Your task to perform on an android device: Search for "logitech g933" on costco.com, select the first entry, and add it to the cart. Image 0: 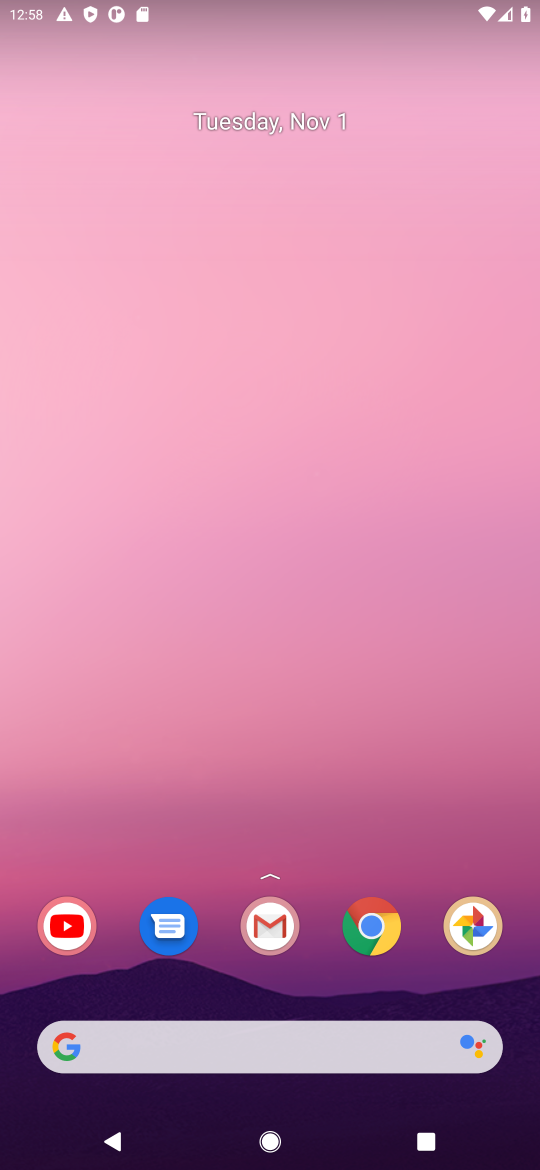
Step 0: click (381, 932)
Your task to perform on an android device: Search for "logitech g933" on costco.com, select the first entry, and add it to the cart. Image 1: 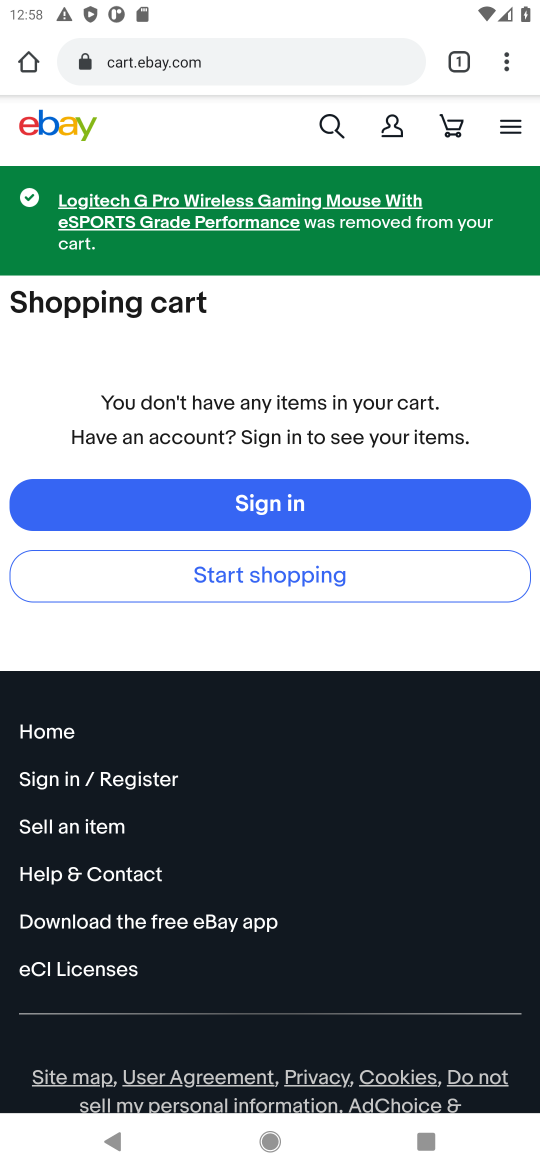
Step 1: click (204, 64)
Your task to perform on an android device: Search for "logitech g933" on costco.com, select the first entry, and add it to the cart. Image 2: 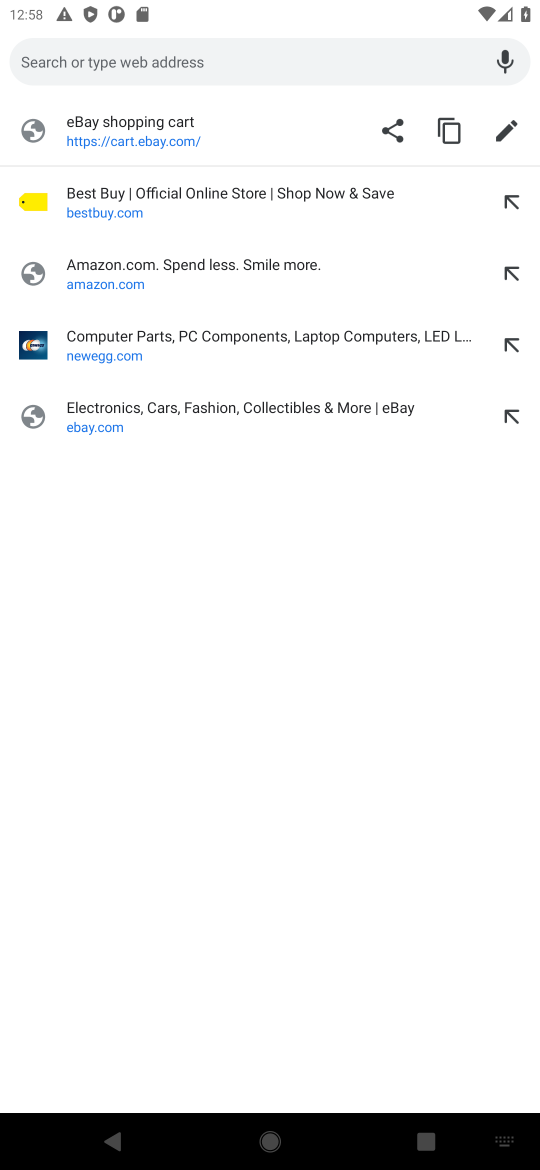
Step 2: type "costco.com"
Your task to perform on an android device: Search for "logitech g933" on costco.com, select the first entry, and add it to the cart. Image 3: 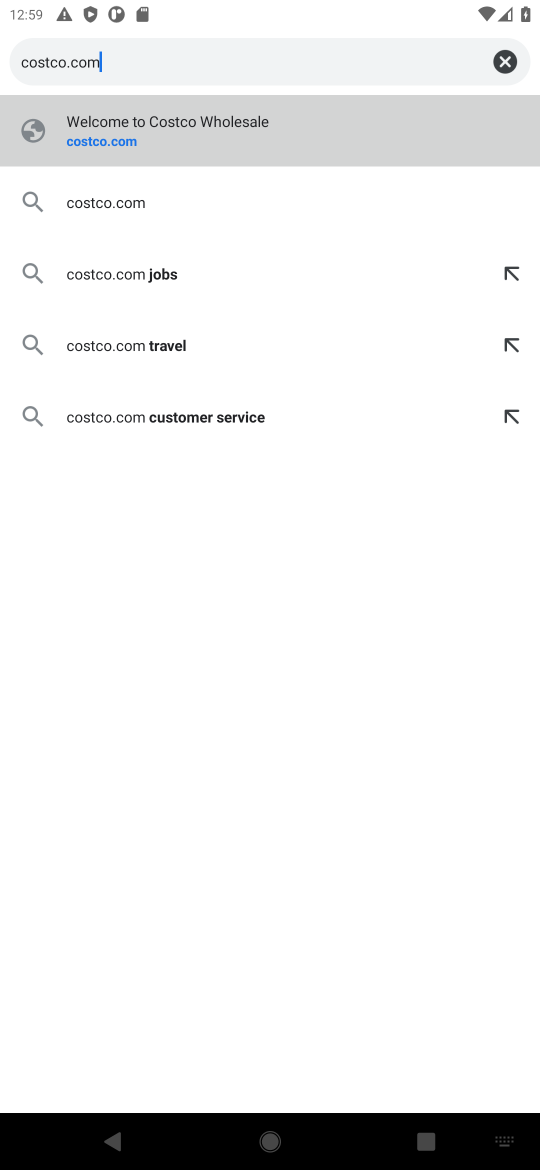
Step 3: click (241, 131)
Your task to perform on an android device: Search for "logitech g933" on costco.com, select the first entry, and add it to the cart. Image 4: 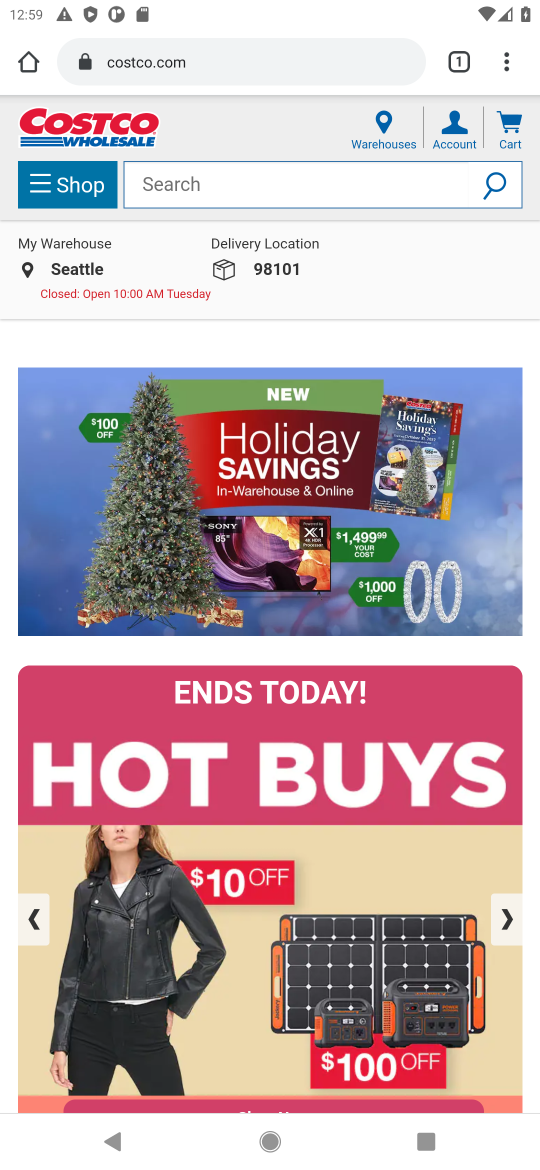
Step 4: click (250, 182)
Your task to perform on an android device: Search for "logitech g933" on costco.com, select the first entry, and add it to the cart. Image 5: 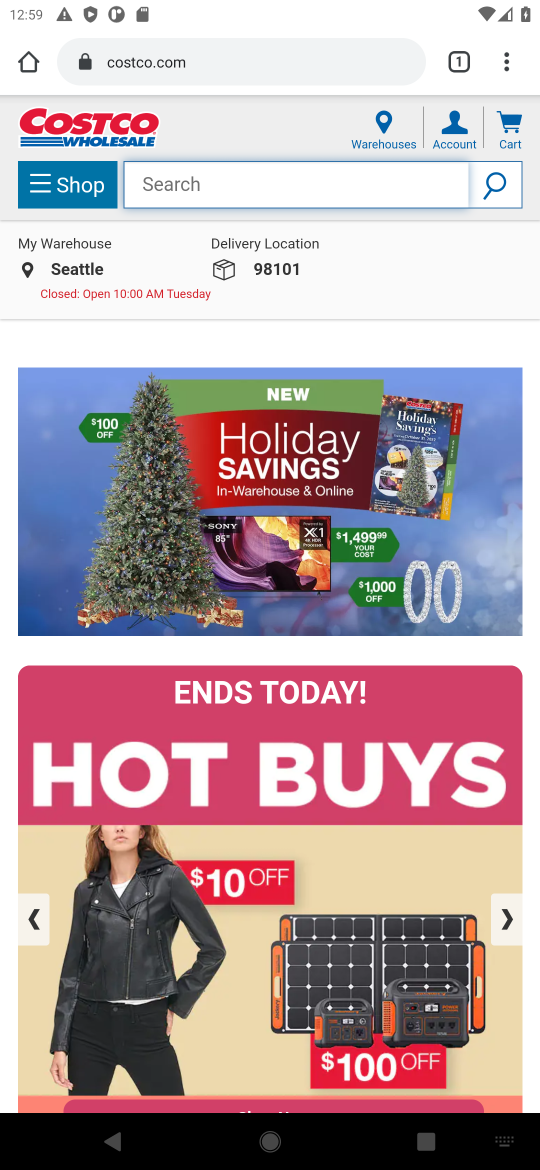
Step 5: type "logitech g933"
Your task to perform on an android device: Search for "logitech g933" on costco.com, select the first entry, and add it to the cart. Image 6: 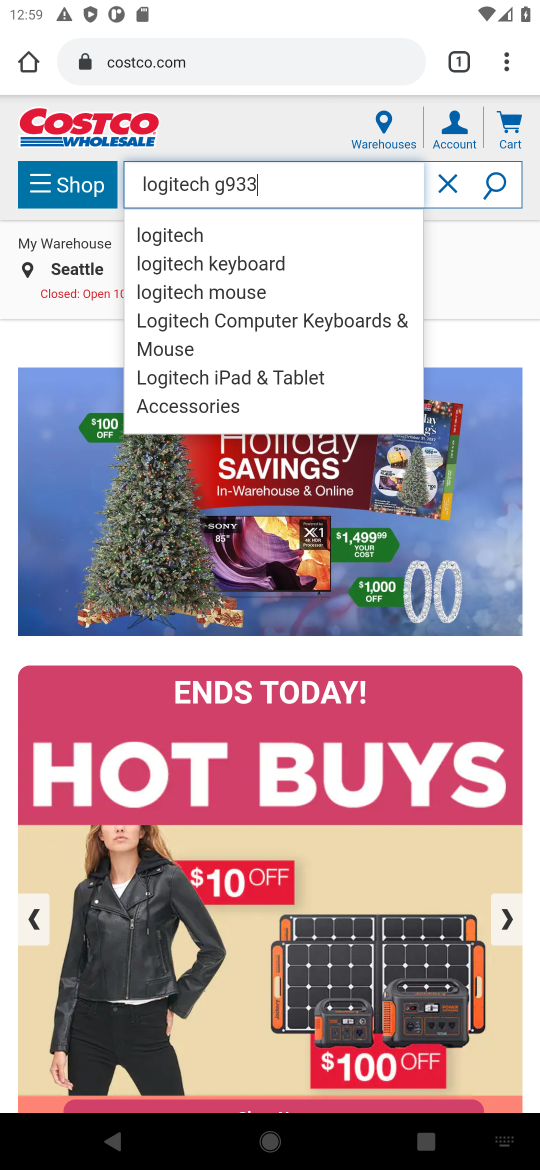
Step 6: type ""
Your task to perform on an android device: Search for "logitech g933" on costco.com, select the first entry, and add it to the cart. Image 7: 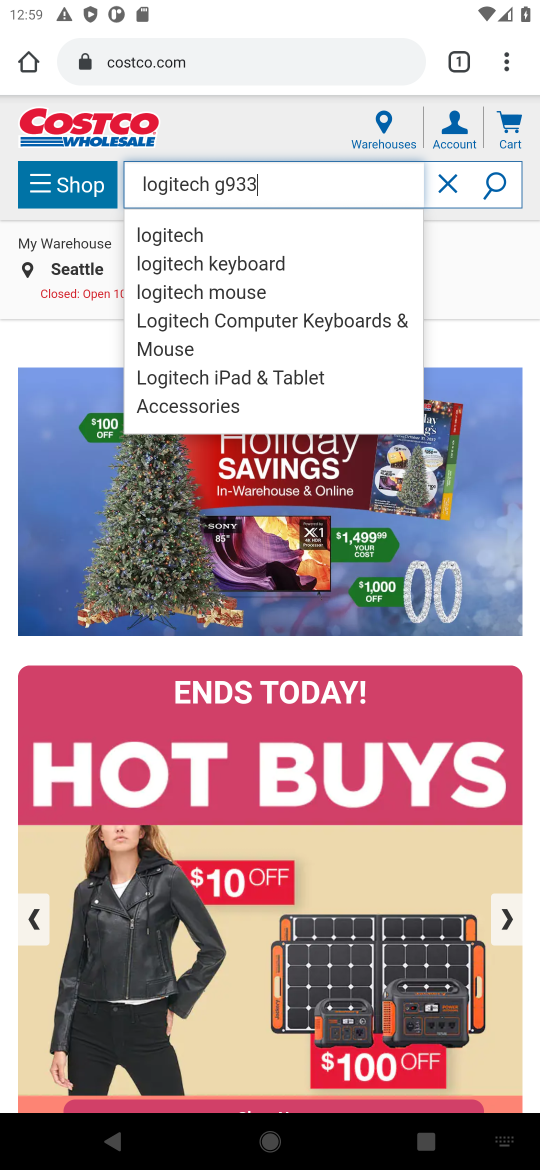
Step 7: press enter
Your task to perform on an android device: Search for "logitech g933" on costco.com, select the first entry, and add it to the cart. Image 8: 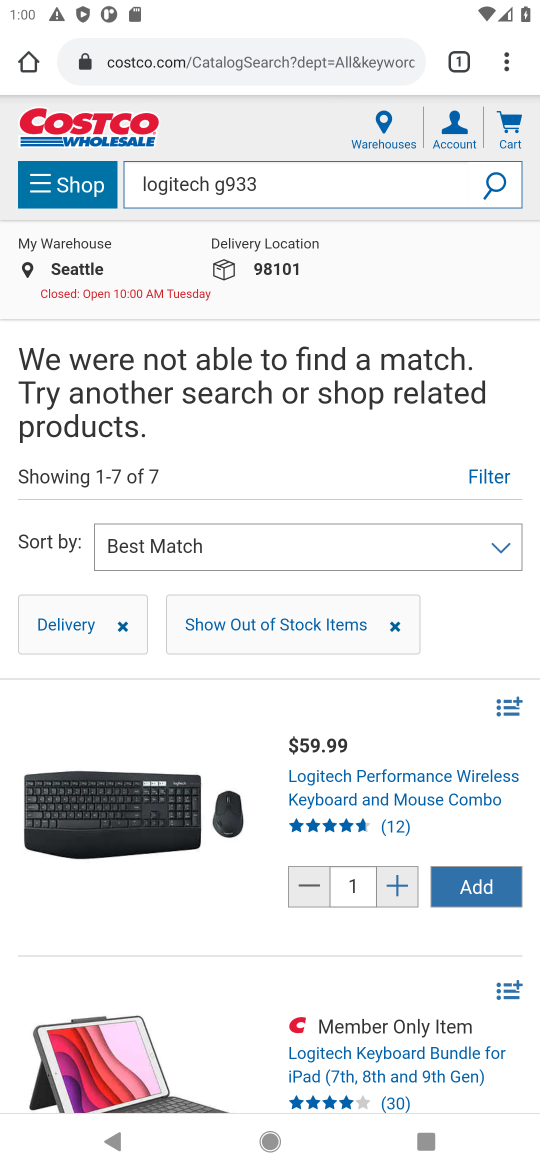
Step 8: click (100, 790)
Your task to perform on an android device: Search for "logitech g933" on costco.com, select the first entry, and add it to the cart. Image 9: 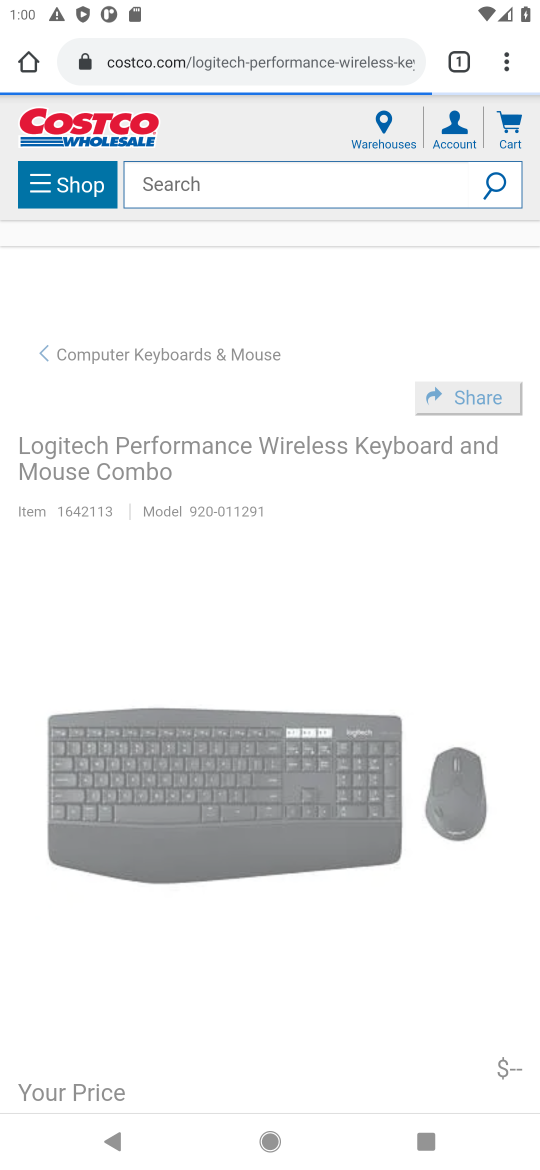
Step 9: drag from (439, 1016) to (101, 9)
Your task to perform on an android device: Search for "logitech g933" on costco.com, select the first entry, and add it to the cart. Image 10: 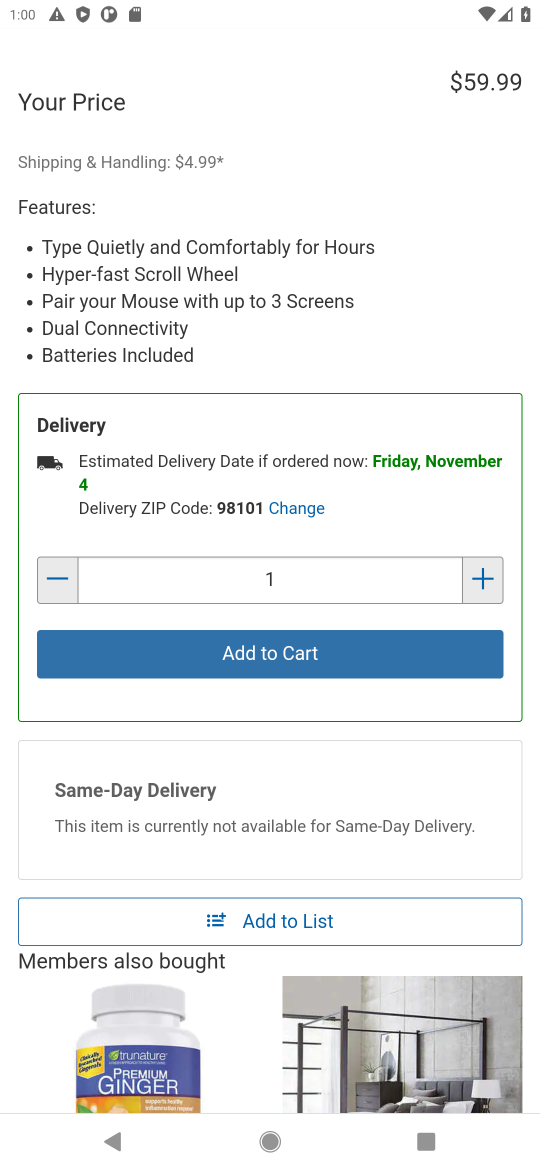
Step 10: click (224, 658)
Your task to perform on an android device: Search for "logitech g933" on costco.com, select the first entry, and add it to the cart. Image 11: 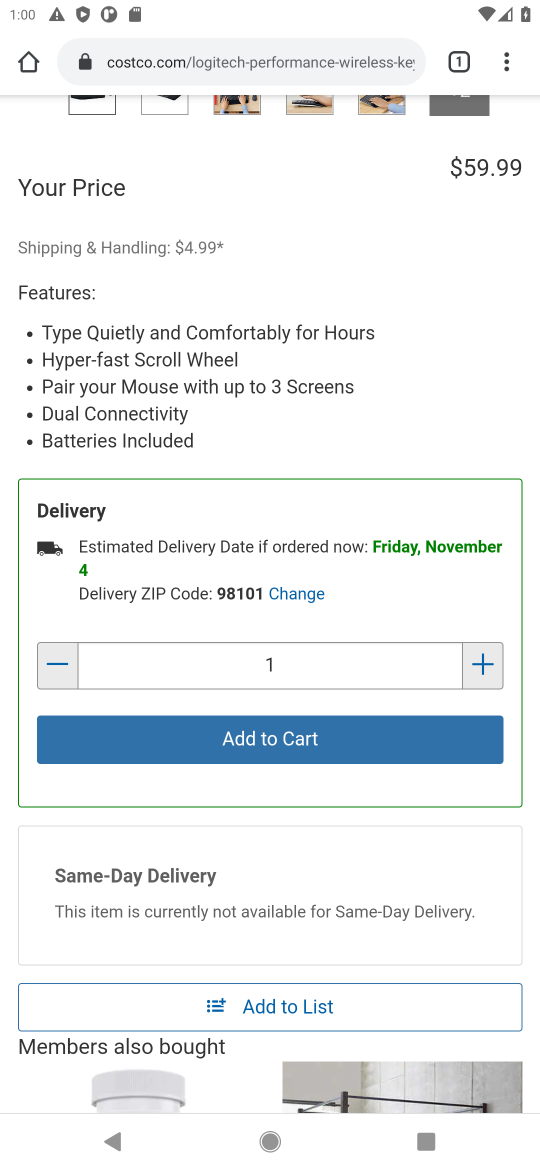
Step 11: click (348, 734)
Your task to perform on an android device: Search for "logitech g933" on costco.com, select the first entry, and add it to the cart. Image 12: 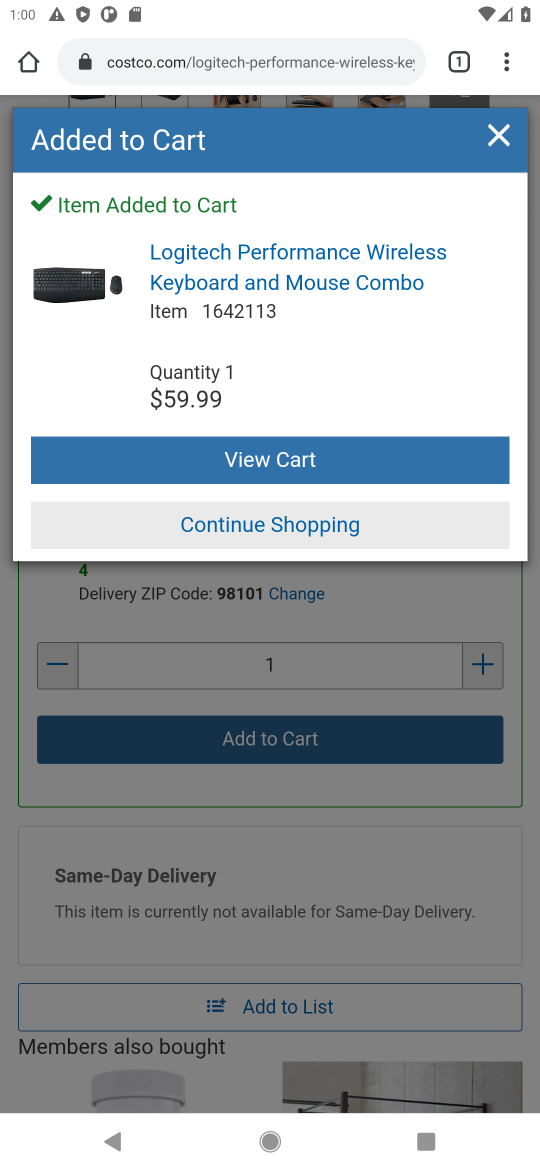
Step 12: task complete